Your task to perform on an android device: Search for pizza restaurants on Maps Image 0: 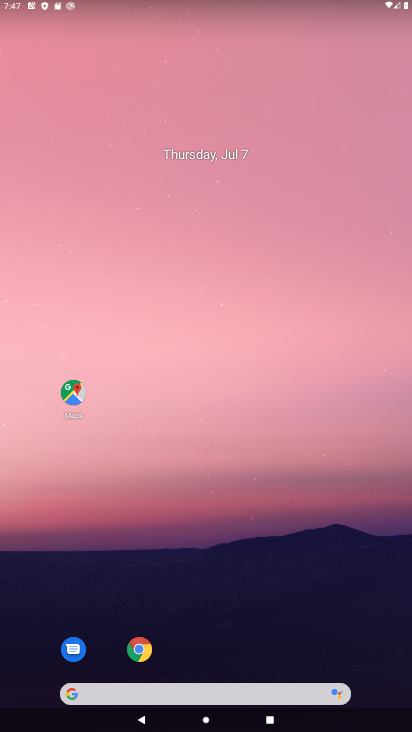
Step 0: click (72, 394)
Your task to perform on an android device: Search for pizza restaurants on Maps Image 1: 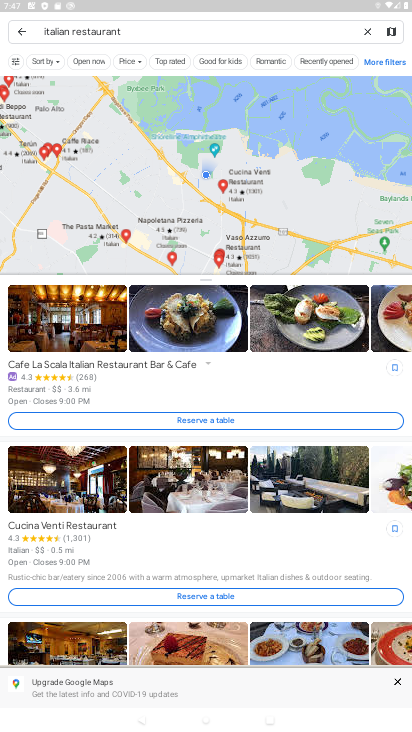
Step 1: click (365, 28)
Your task to perform on an android device: Search for pizza restaurants on Maps Image 2: 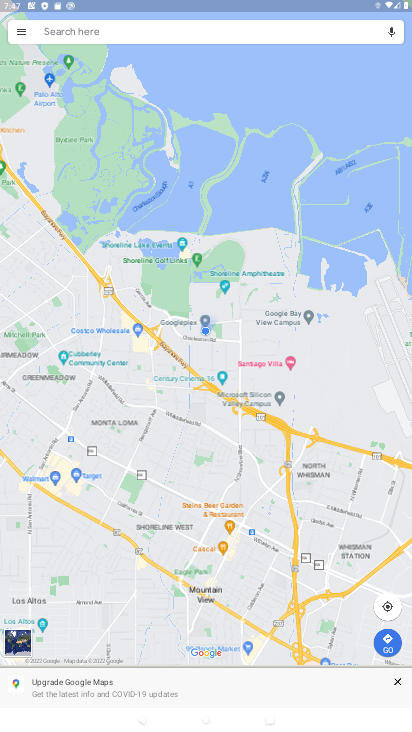
Step 2: click (215, 29)
Your task to perform on an android device: Search for pizza restaurants on Maps Image 3: 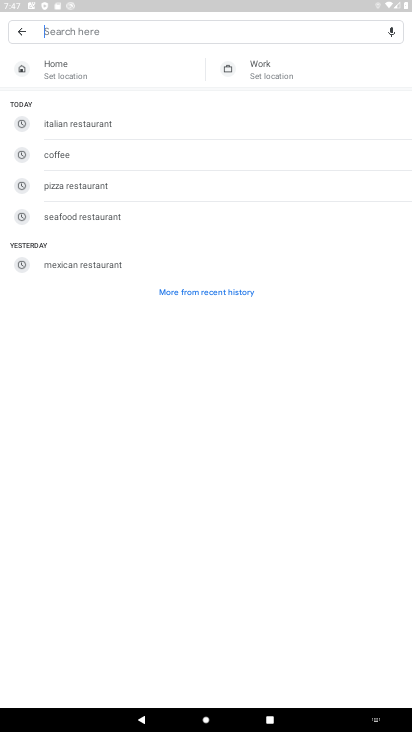
Step 3: type "Pizza restaurants"
Your task to perform on an android device: Search for pizza restaurants on Maps Image 4: 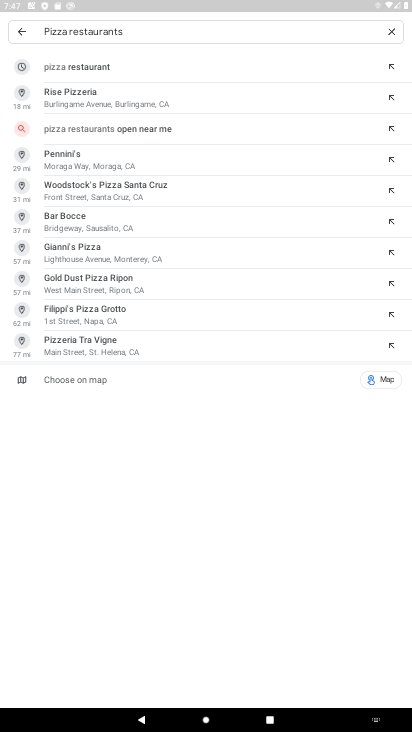
Step 4: click (93, 60)
Your task to perform on an android device: Search for pizza restaurants on Maps Image 5: 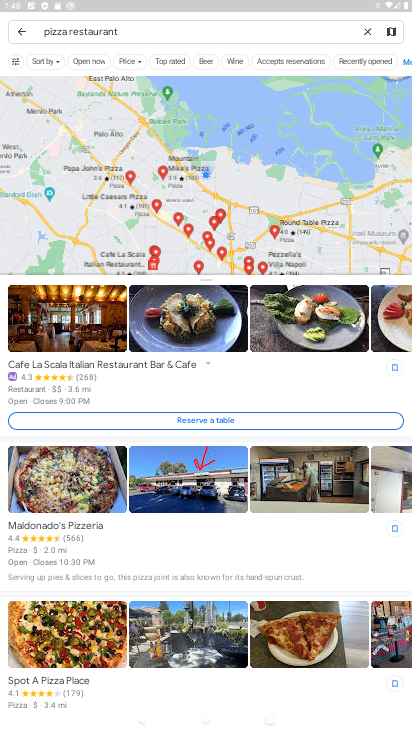
Step 5: task complete